Your task to perform on an android device: See recent photos Image 0: 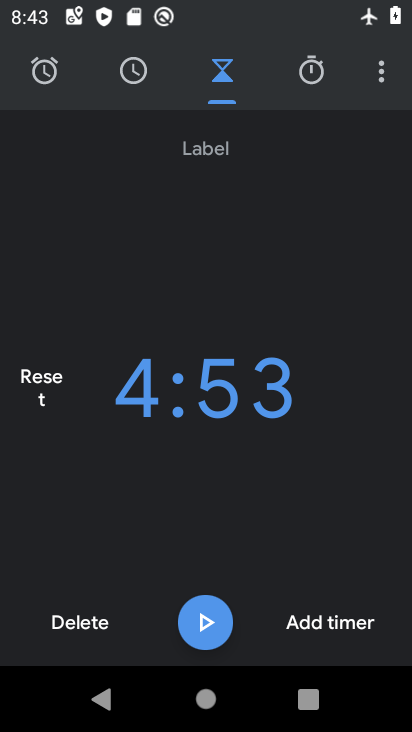
Step 0: press home button
Your task to perform on an android device: See recent photos Image 1: 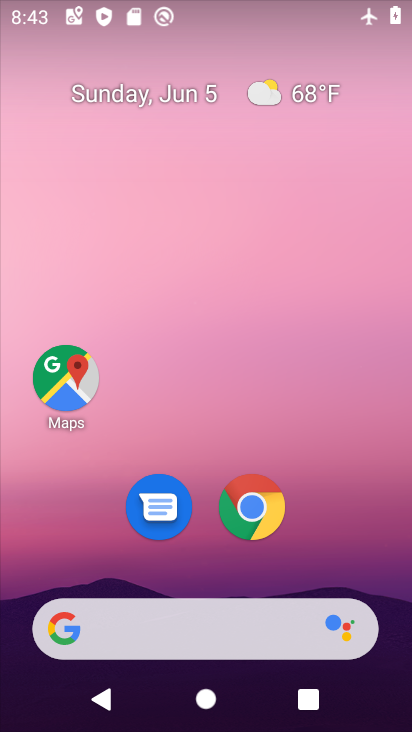
Step 1: drag from (204, 542) to (224, 17)
Your task to perform on an android device: See recent photos Image 2: 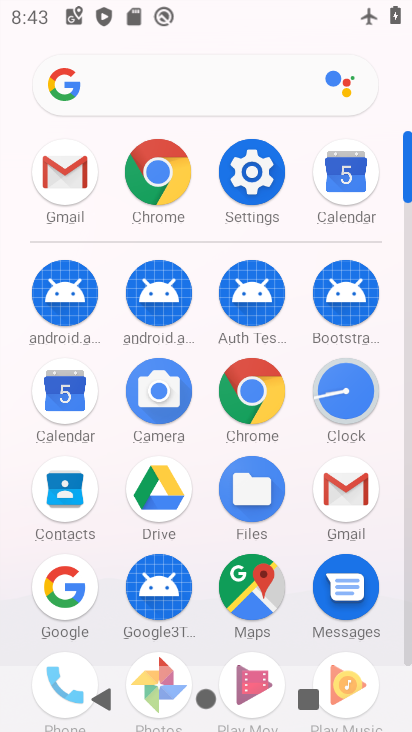
Step 2: drag from (203, 544) to (242, 230)
Your task to perform on an android device: See recent photos Image 3: 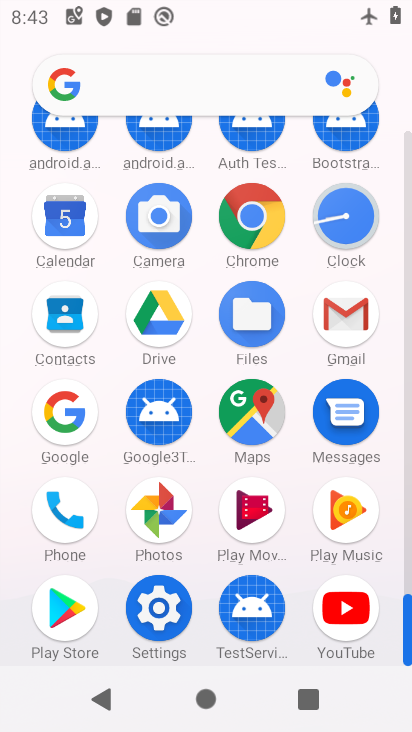
Step 3: click (154, 517)
Your task to perform on an android device: See recent photos Image 4: 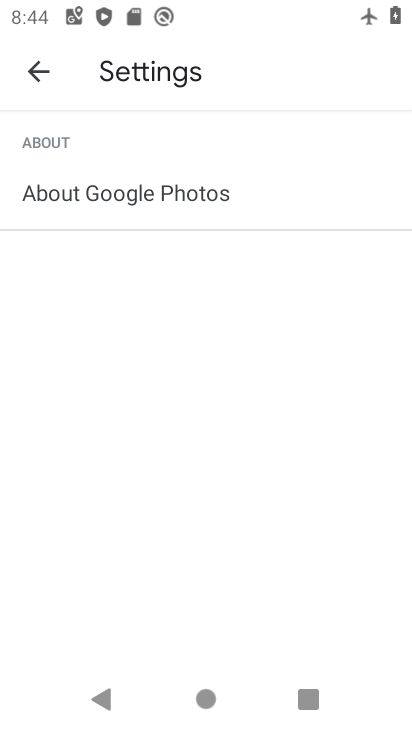
Step 4: click (50, 78)
Your task to perform on an android device: See recent photos Image 5: 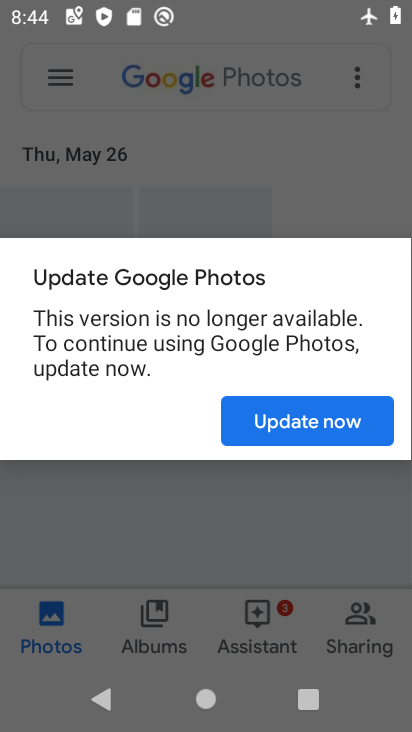
Step 5: click (331, 430)
Your task to perform on an android device: See recent photos Image 6: 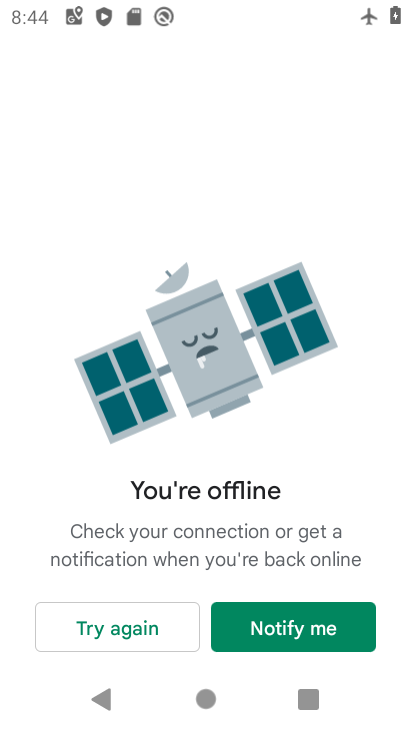
Step 6: task complete